Your task to perform on an android device: turn smart compose on in the gmail app Image 0: 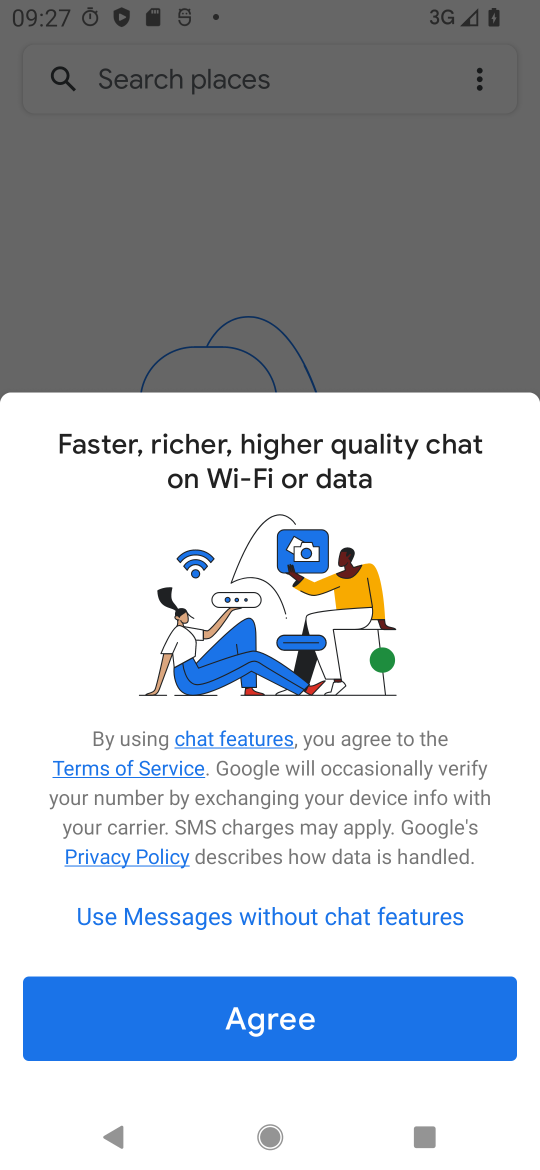
Step 0: press home button
Your task to perform on an android device: turn smart compose on in the gmail app Image 1: 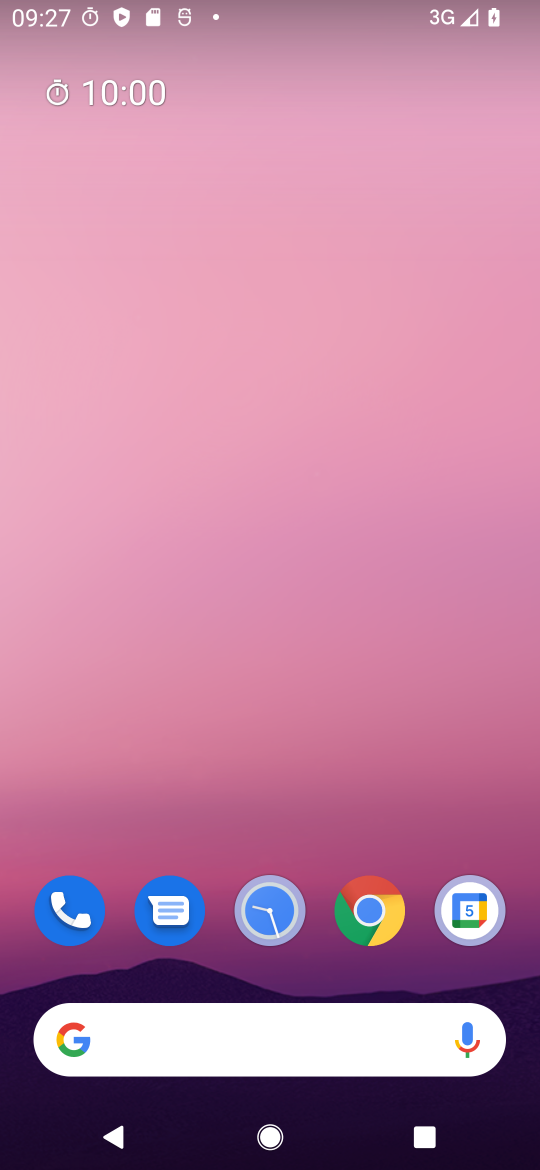
Step 1: drag from (379, 1039) to (343, 17)
Your task to perform on an android device: turn smart compose on in the gmail app Image 2: 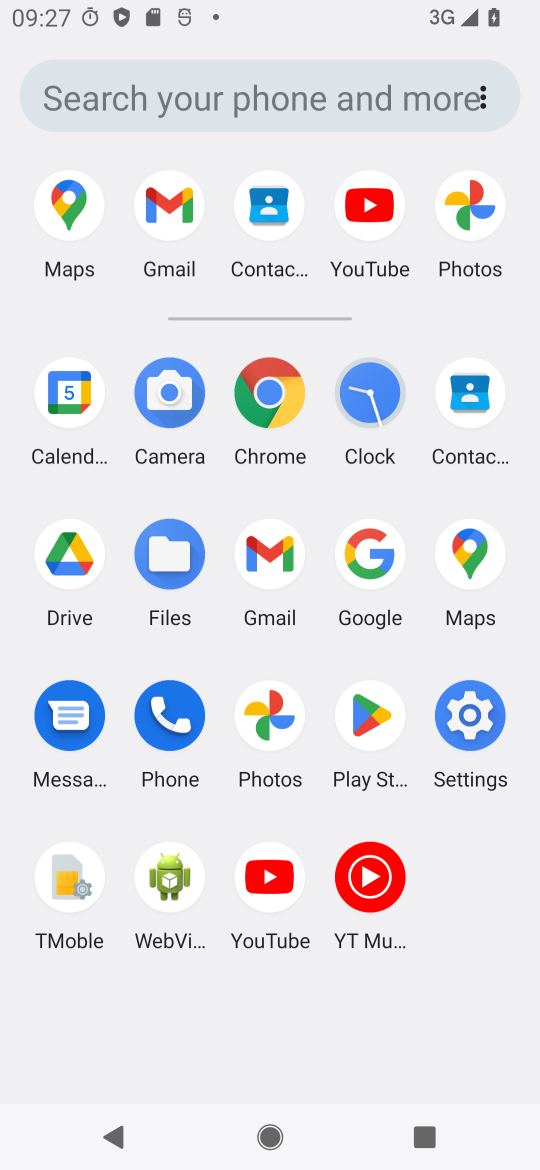
Step 2: click (282, 547)
Your task to perform on an android device: turn smart compose on in the gmail app Image 3: 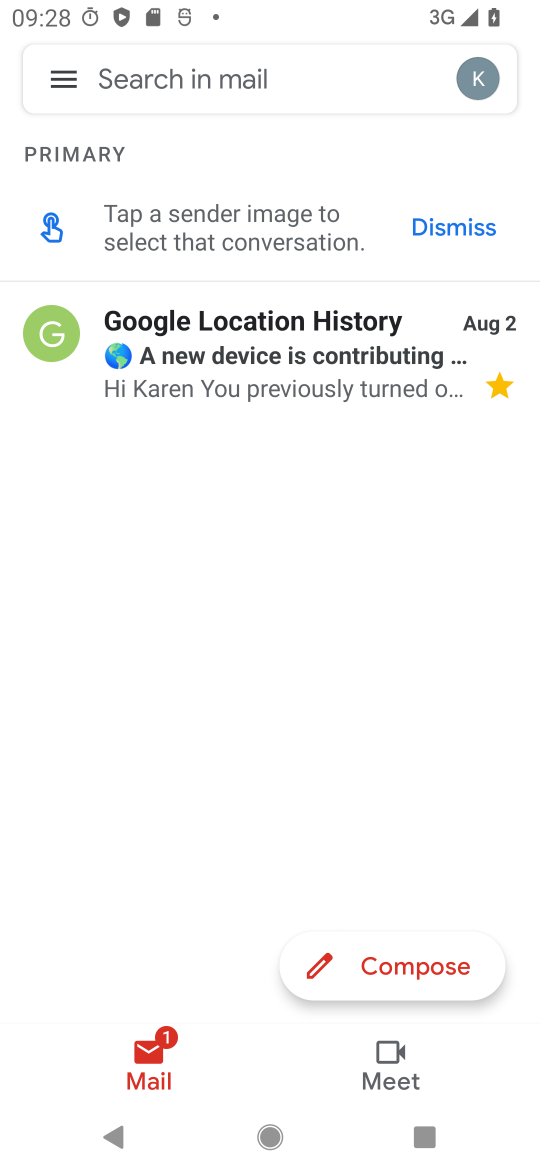
Step 3: click (67, 80)
Your task to perform on an android device: turn smart compose on in the gmail app Image 4: 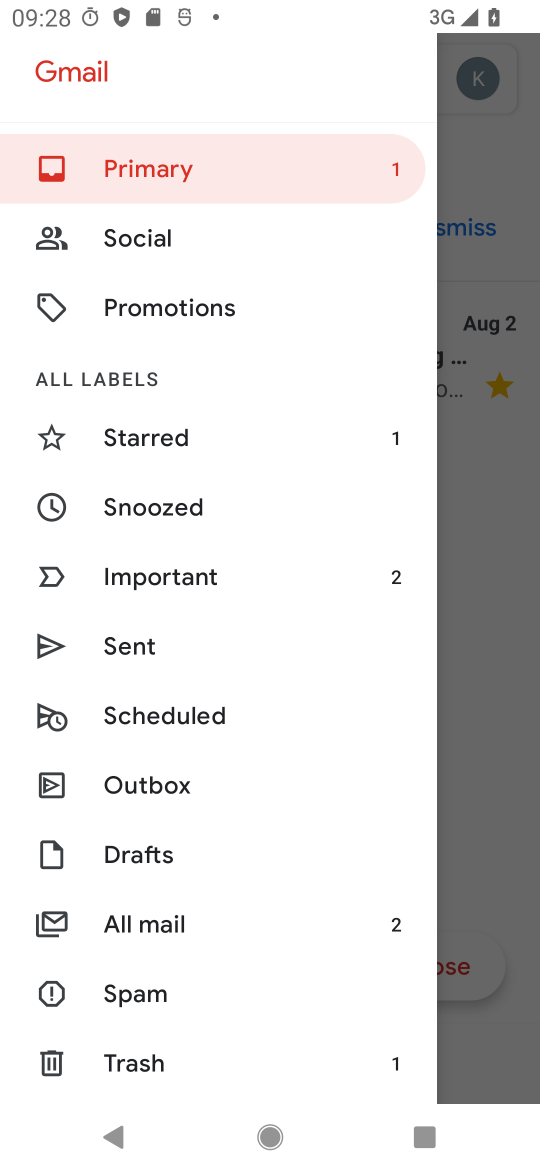
Step 4: drag from (229, 897) to (254, 208)
Your task to perform on an android device: turn smart compose on in the gmail app Image 5: 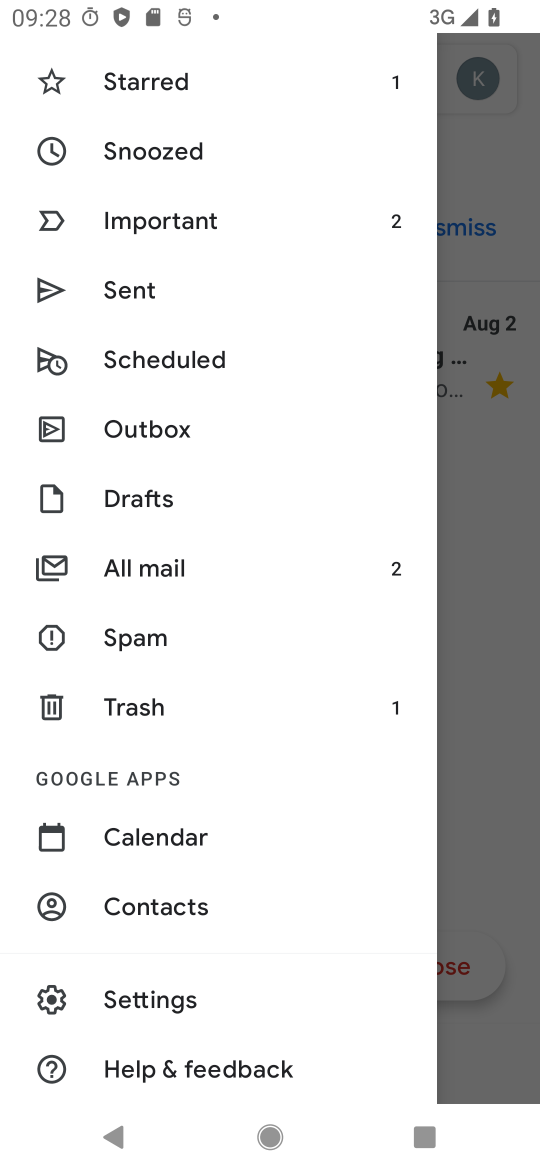
Step 5: click (252, 1004)
Your task to perform on an android device: turn smart compose on in the gmail app Image 6: 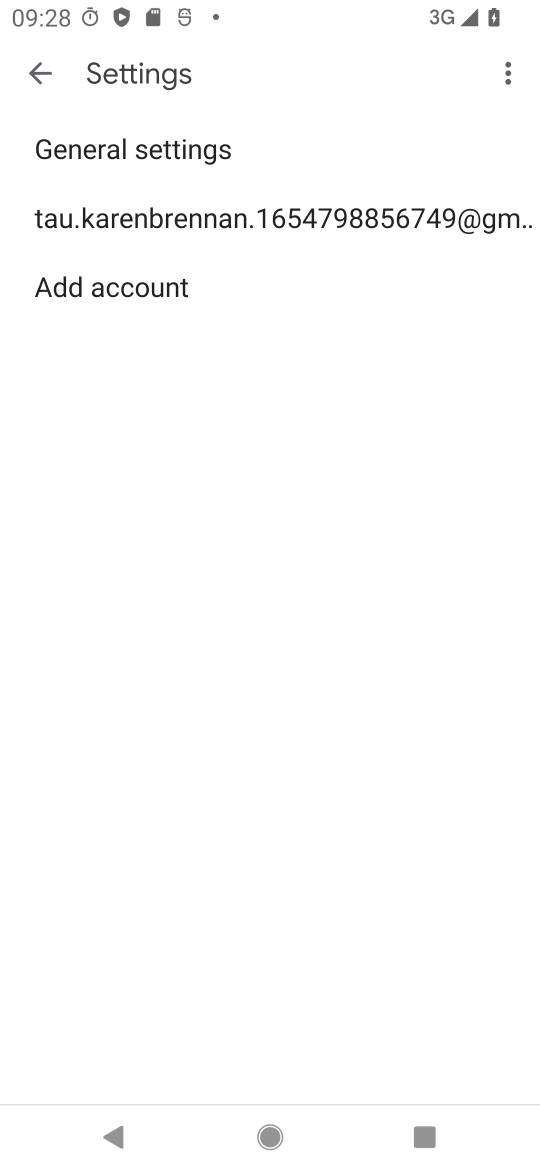
Step 6: click (353, 221)
Your task to perform on an android device: turn smart compose on in the gmail app Image 7: 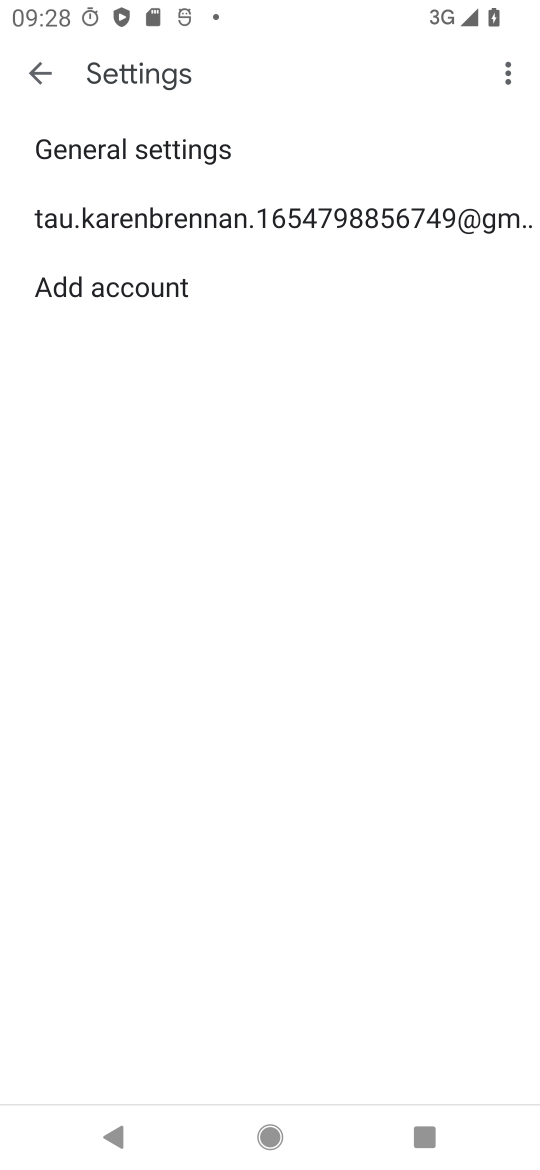
Step 7: click (353, 221)
Your task to perform on an android device: turn smart compose on in the gmail app Image 8: 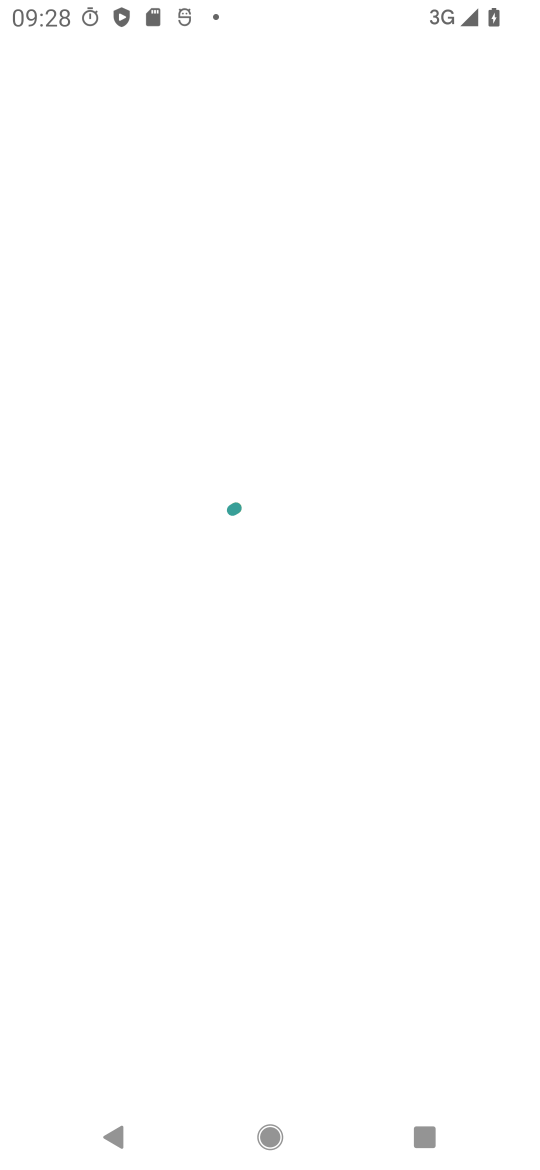
Step 8: press back button
Your task to perform on an android device: turn smart compose on in the gmail app Image 9: 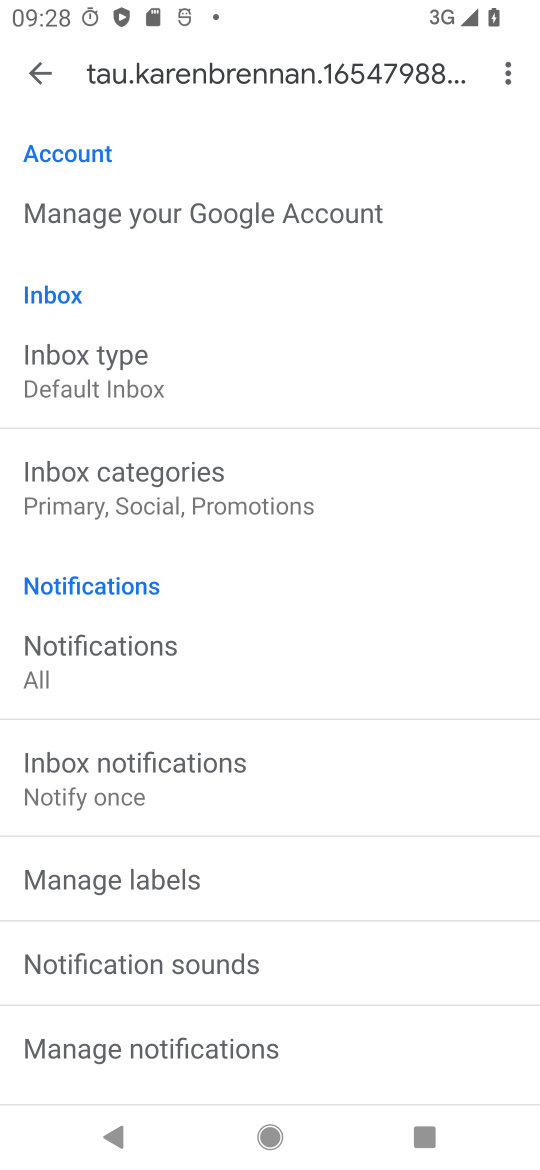
Step 9: drag from (342, 1032) to (402, 413)
Your task to perform on an android device: turn smart compose on in the gmail app Image 10: 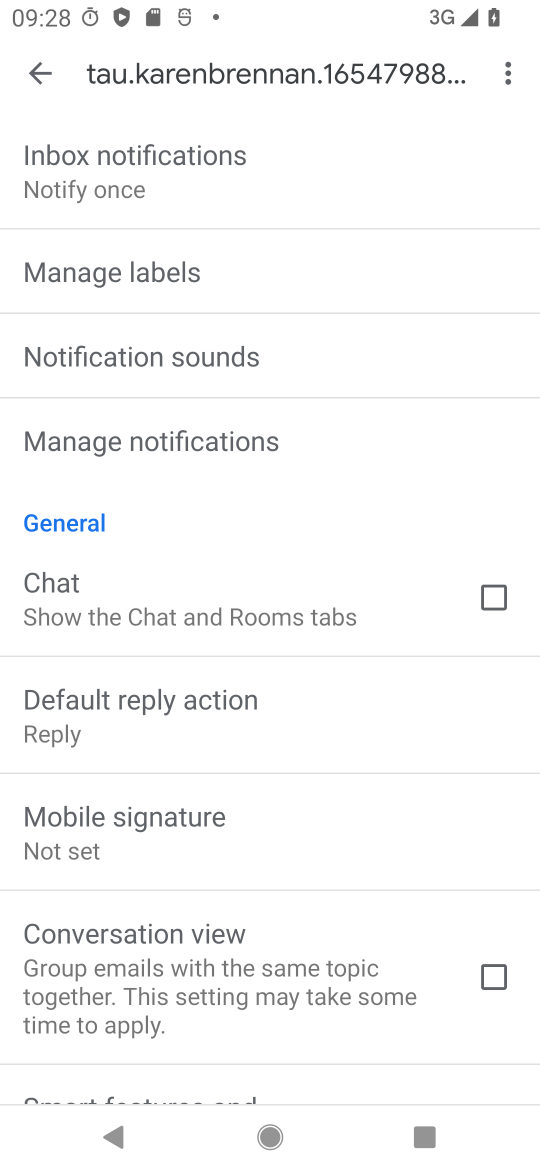
Step 10: drag from (284, 1009) to (364, 372)
Your task to perform on an android device: turn smart compose on in the gmail app Image 11: 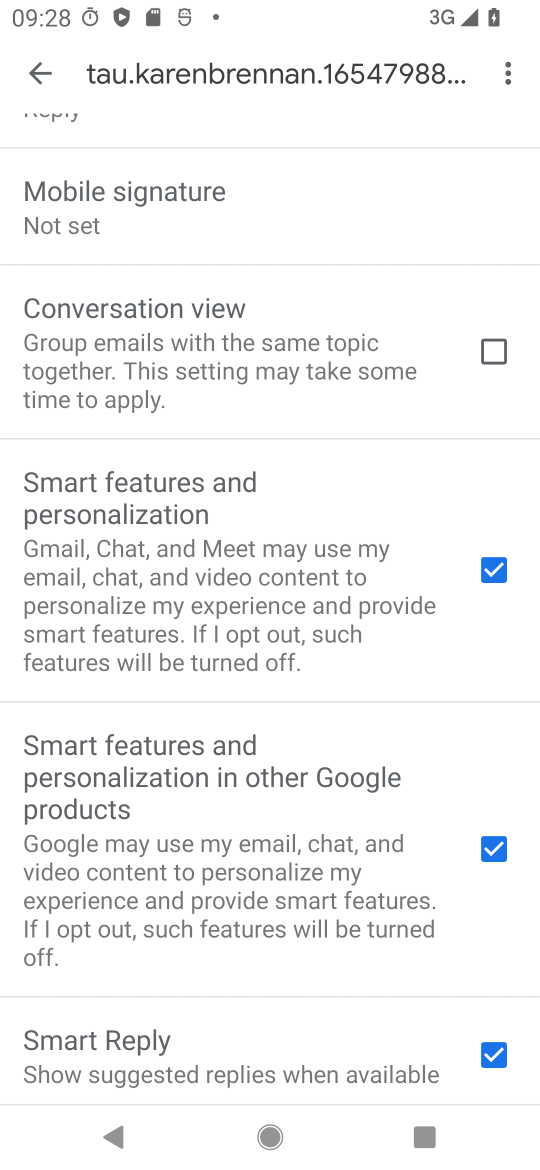
Step 11: drag from (295, 1039) to (329, 340)
Your task to perform on an android device: turn smart compose on in the gmail app Image 12: 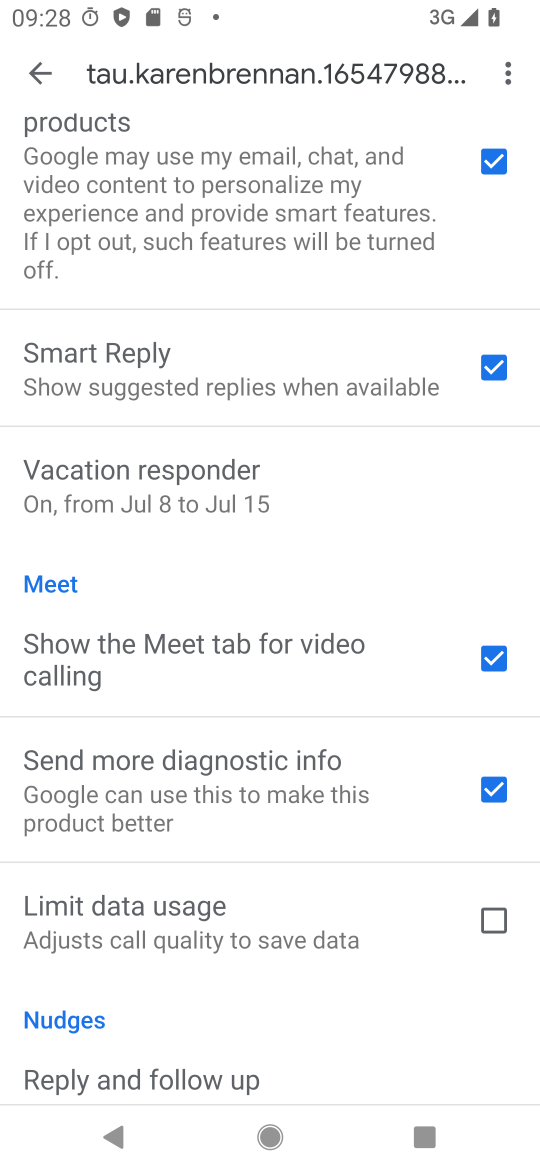
Step 12: drag from (280, 350) to (273, 843)
Your task to perform on an android device: turn smart compose on in the gmail app Image 13: 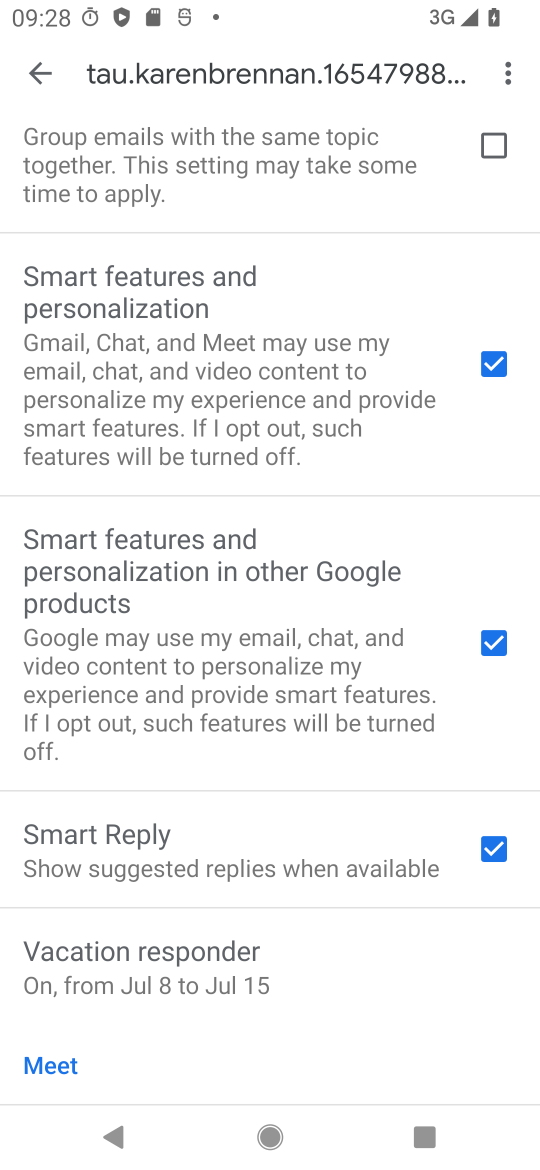
Step 13: drag from (276, 588) to (295, 990)
Your task to perform on an android device: turn smart compose on in the gmail app Image 14: 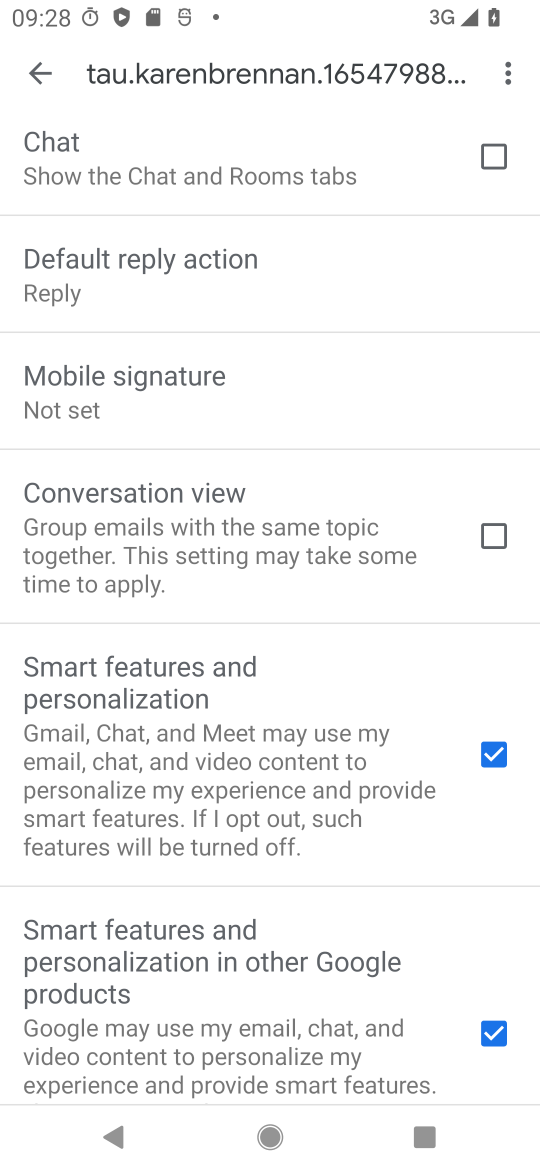
Step 14: drag from (324, 324) to (406, 916)
Your task to perform on an android device: turn smart compose on in the gmail app Image 15: 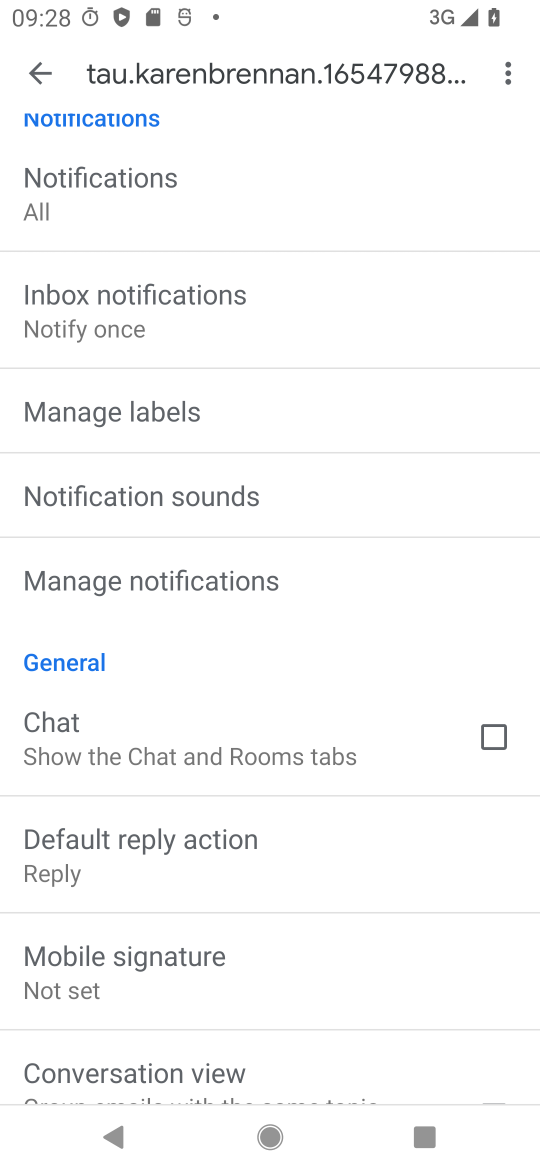
Step 15: drag from (286, 1062) to (309, 331)
Your task to perform on an android device: turn smart compose on in the gmail app Image 16: 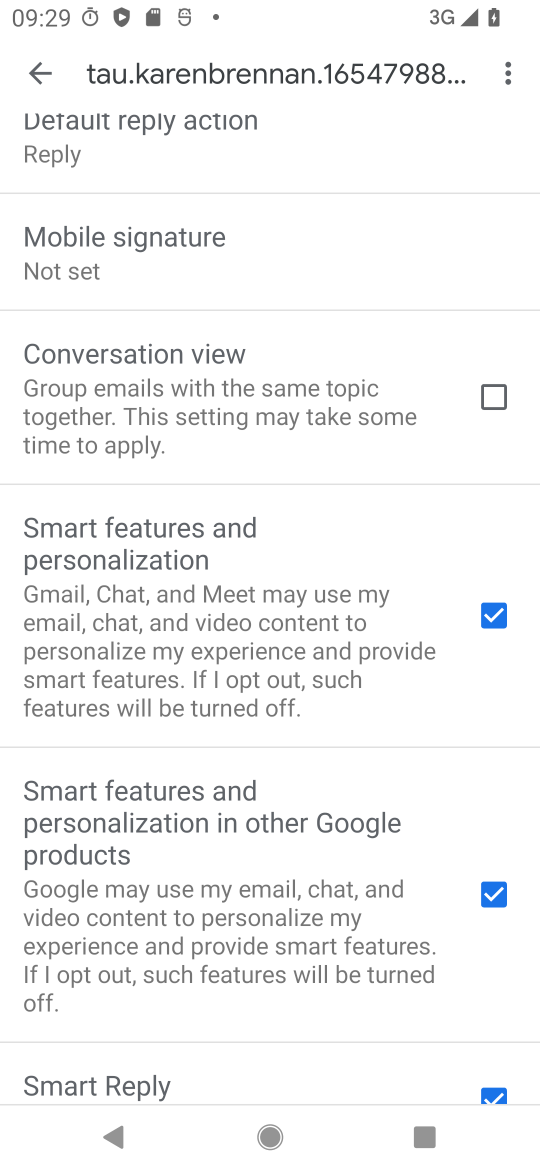
Step 16: click (303, 898)
Your task to perform on an android device: turn smart compose on in the gmail app Image 17: 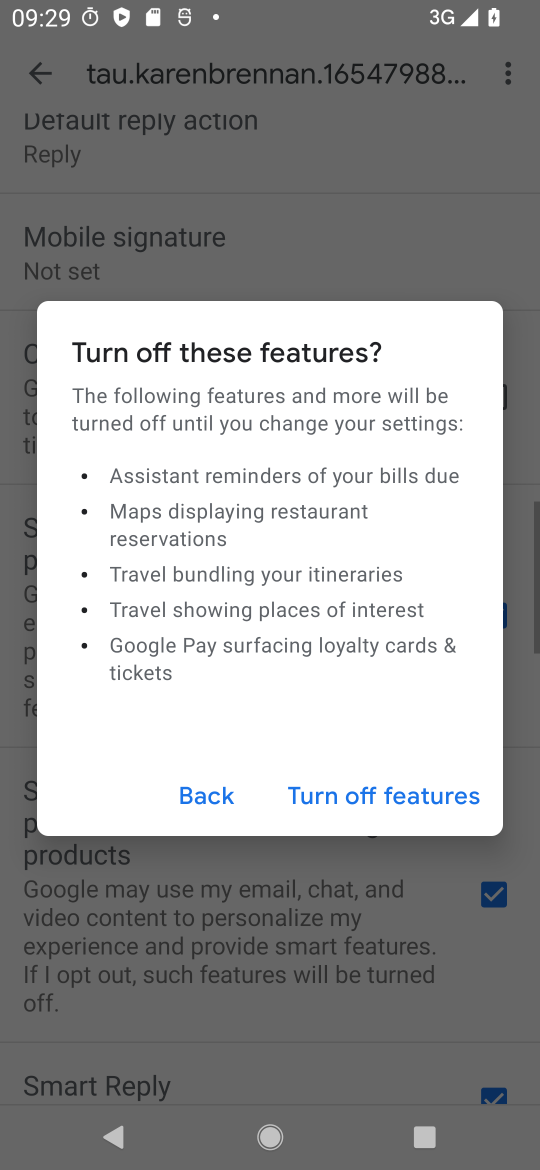
Step 17: task complete